Your task to perform on an android device: Open Google Maps and go to "Timeline" Image 0: 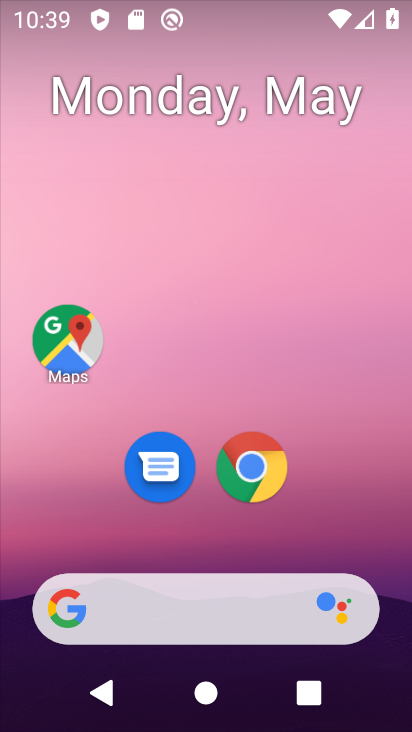
Step 0: click (83, 370)
Your task to perform on an android device: Open Google Maps and go to "Timeline" Image 1: 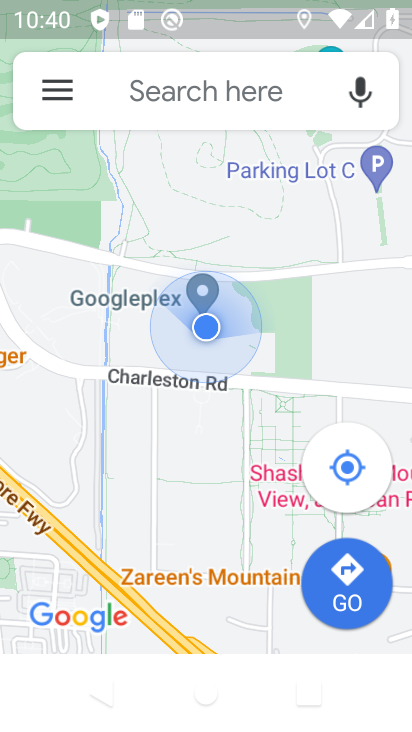
Step 1: click (46, 81)
Your task to perform on an android device: Open Google Maps and go to "Timeline" Image 2: 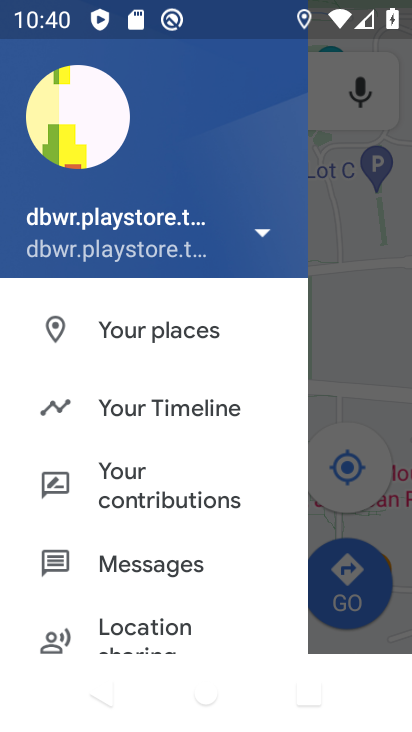
Step 2: click (186, 423)
Your task to perform on an android device: Open Google Maps and go to "Timeline" Image 3: 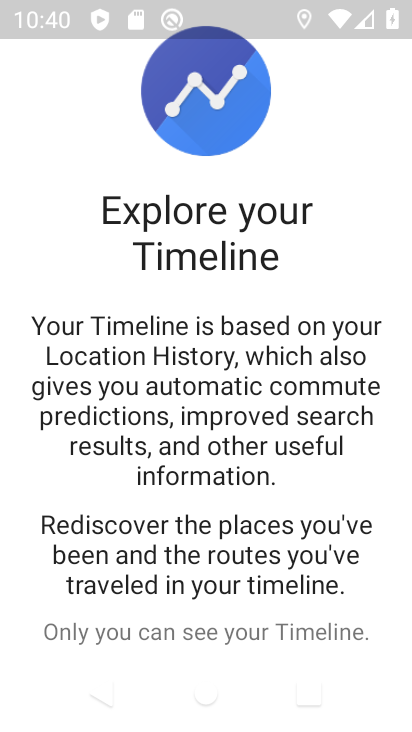
Step 3: click (240, 179)
Your task to perform on an android device: Open Google Maps and go to "Timeline" Image 4: 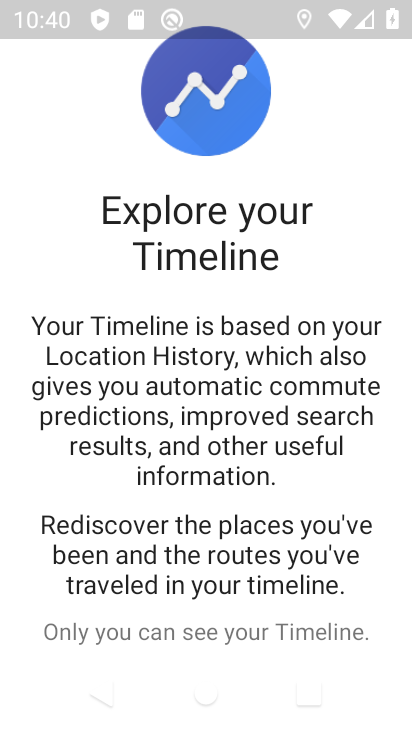
Step 4: drag from (303, 606) to (338, 187)
Your task to perform on an android device: Open Google Maps and go to "Timeline" Image 5: 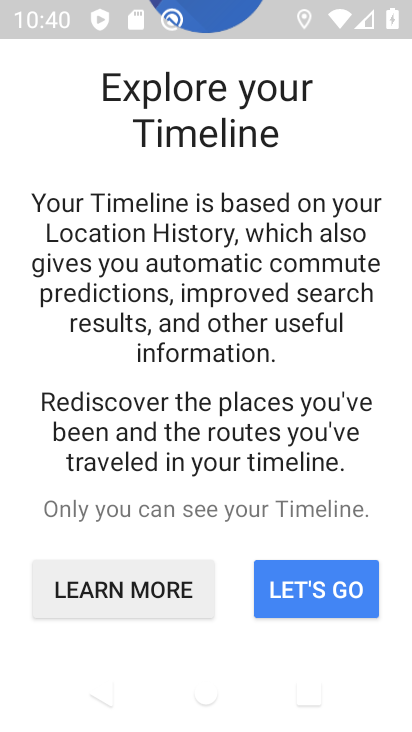
Step 5: click (309, 599)
Your task to perform on an android device: Open Google Maps and go to "Timeline" Image 6: 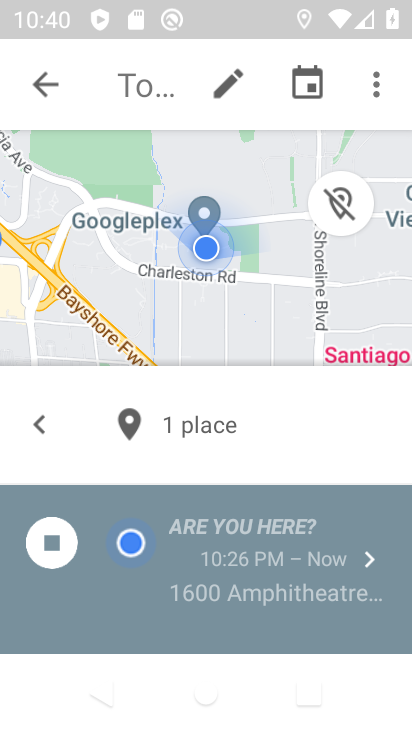
Step 6: task complete